Your task to perform on an android device: Open privacy settings Image 0: 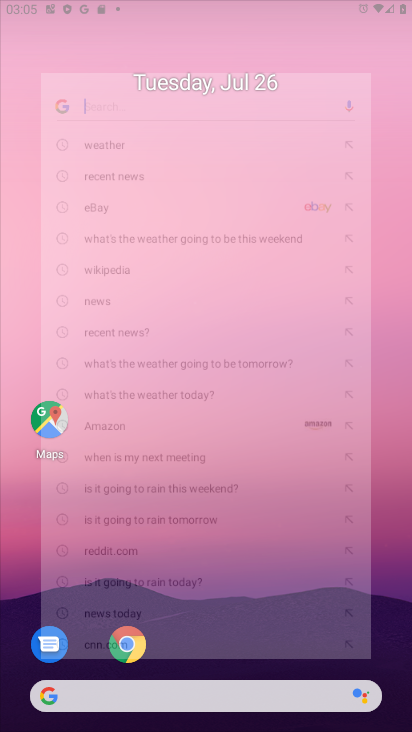
Step 0: drag from (188, 669) to (126, 285)
Your task to perform on an android device: Open privacy settings Image 1: 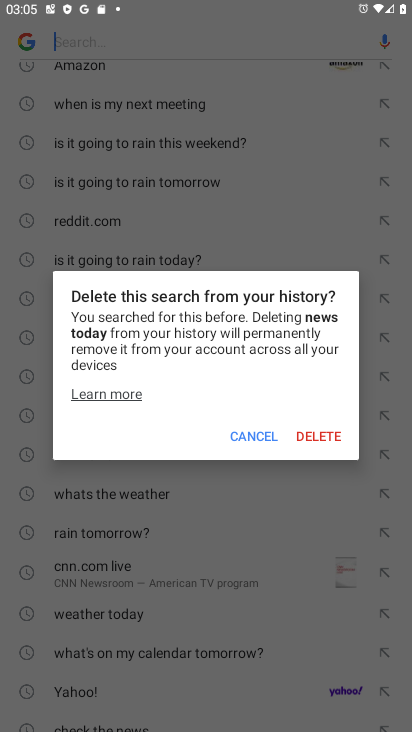
Step 1: press back button
Your task to perform on an android device: Open privacy settings Image 2: 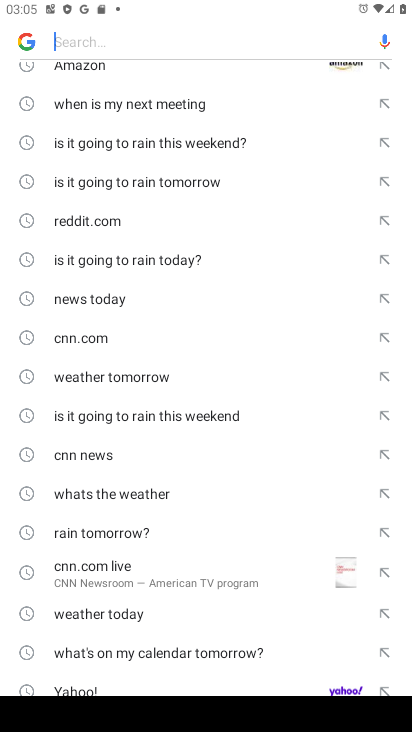
Step 2: press back button
Your task to perform on an android device: Open privacy settings Image 3: 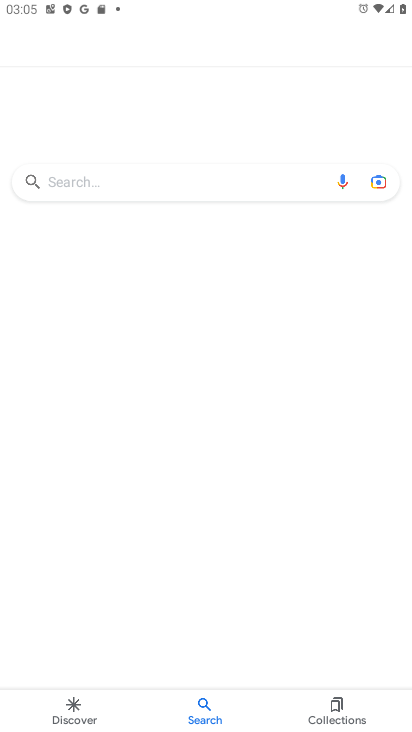
Step 3: press back button
Your task to perform on an android device: Open privacy settings Image 4: 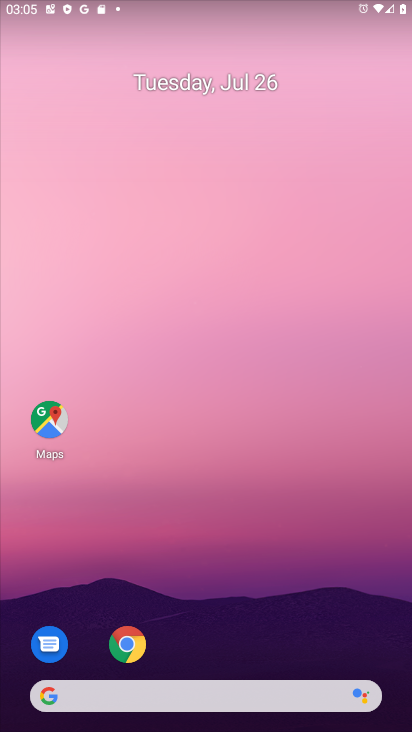
Step 4: drag from (211, 667) to (179, 147)
Your task to perform on an android device: Open privacy settings Image 5: 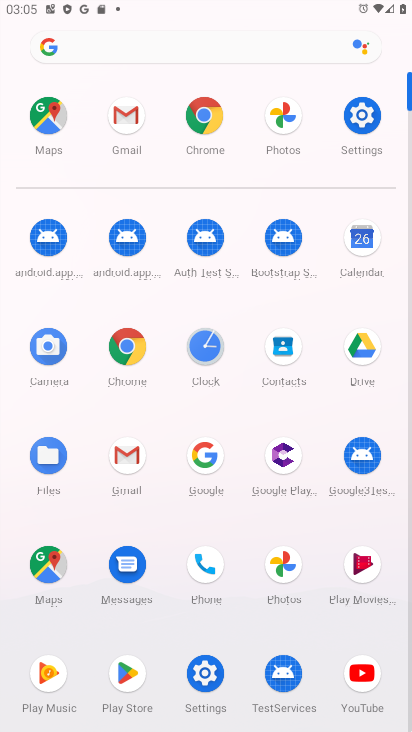
Step 5: click (378, 131)
Your task to perform on an android device: Open privacy settings Image 6: 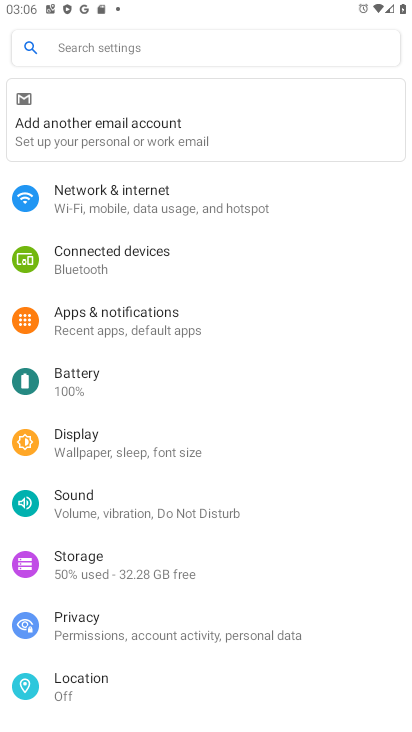
Step 6: drag from (192, 604) to (174, 208)
Your task to perform on an android device: Open privacy settings Image 7: 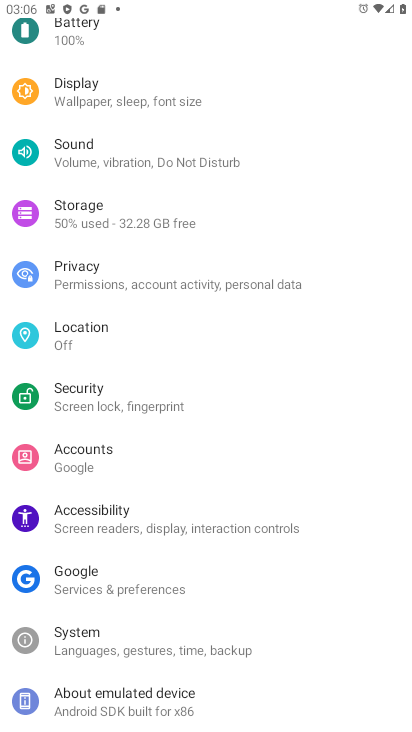
Step 7: click (77, 296)
Your task to perform on an android device: Open privacy settings Image 8: 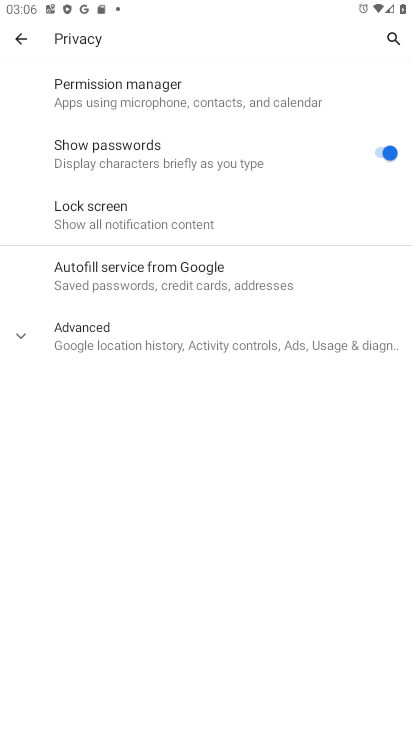
Step 8: task complete